Your task to perform on an android device: open app "Venmo" (install if not already installed), go to login, and select forgot password Image 0: 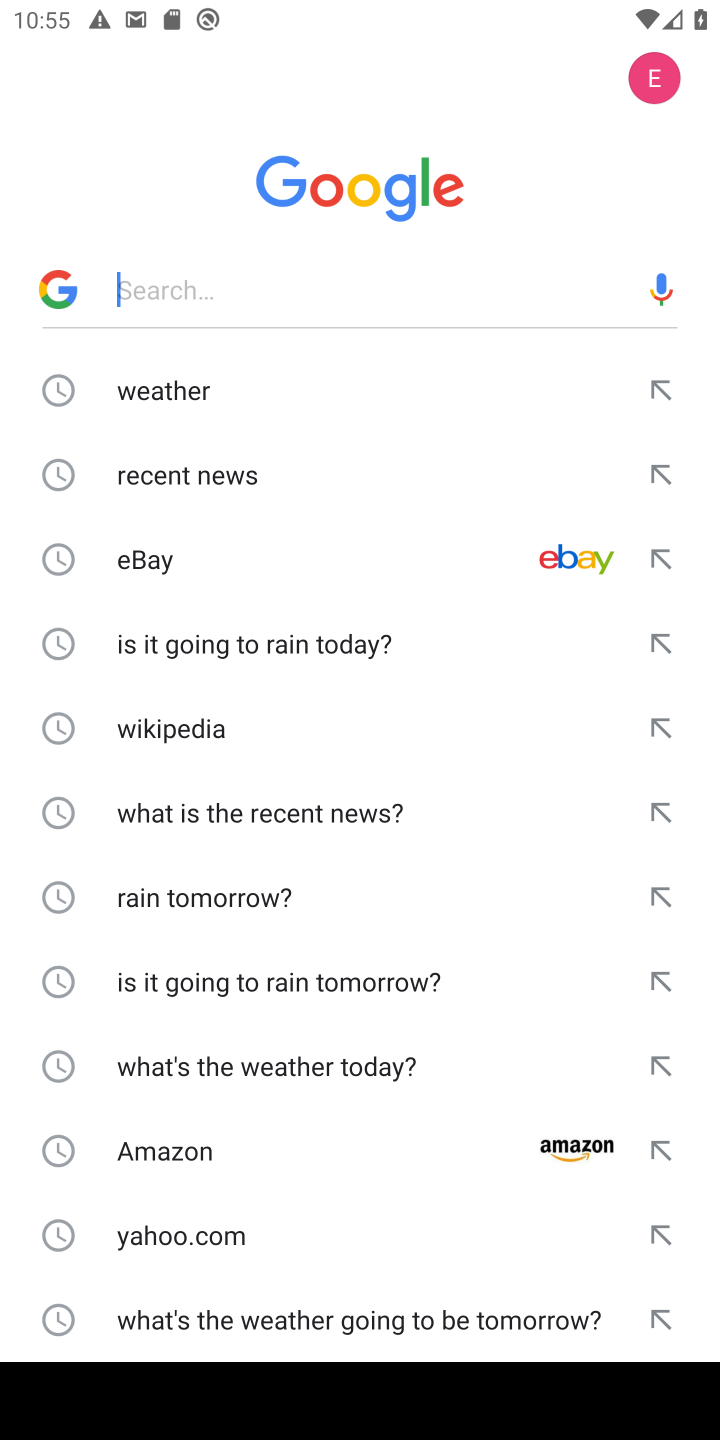
Step 0: press home button
Your task to perform on an android device: open app "Venmo" (install if not already installed), go to login, and select forgot password Image 1: 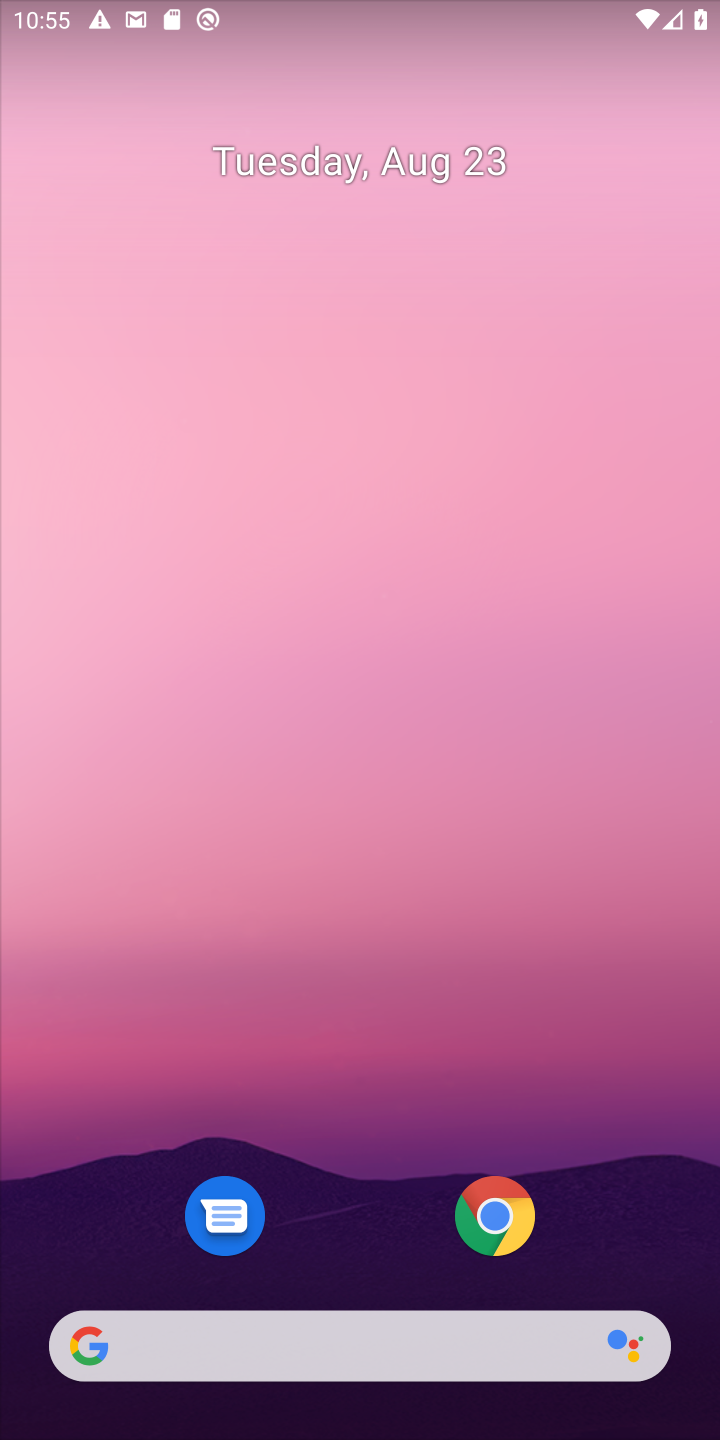
Step 1: drag from (301, 1353) to (408, 188)
Your task to perform on an android device: open app "Venmo" (install if not already installed), go to login, and select forgot password Image 2: 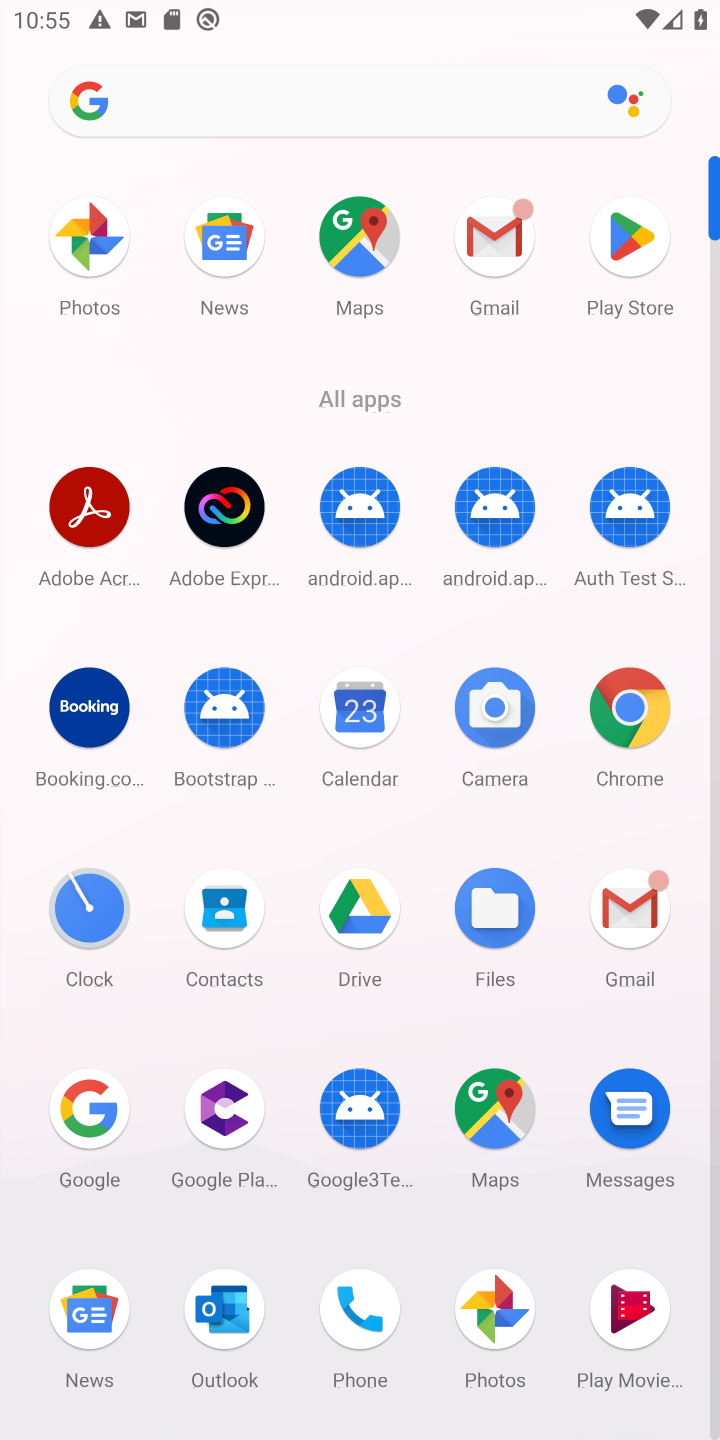
Step 2: click (633, 252)
Your task to perform on an android device: open app "Venmo" (install if not already installed), go to login, and select forgot password Image 3: 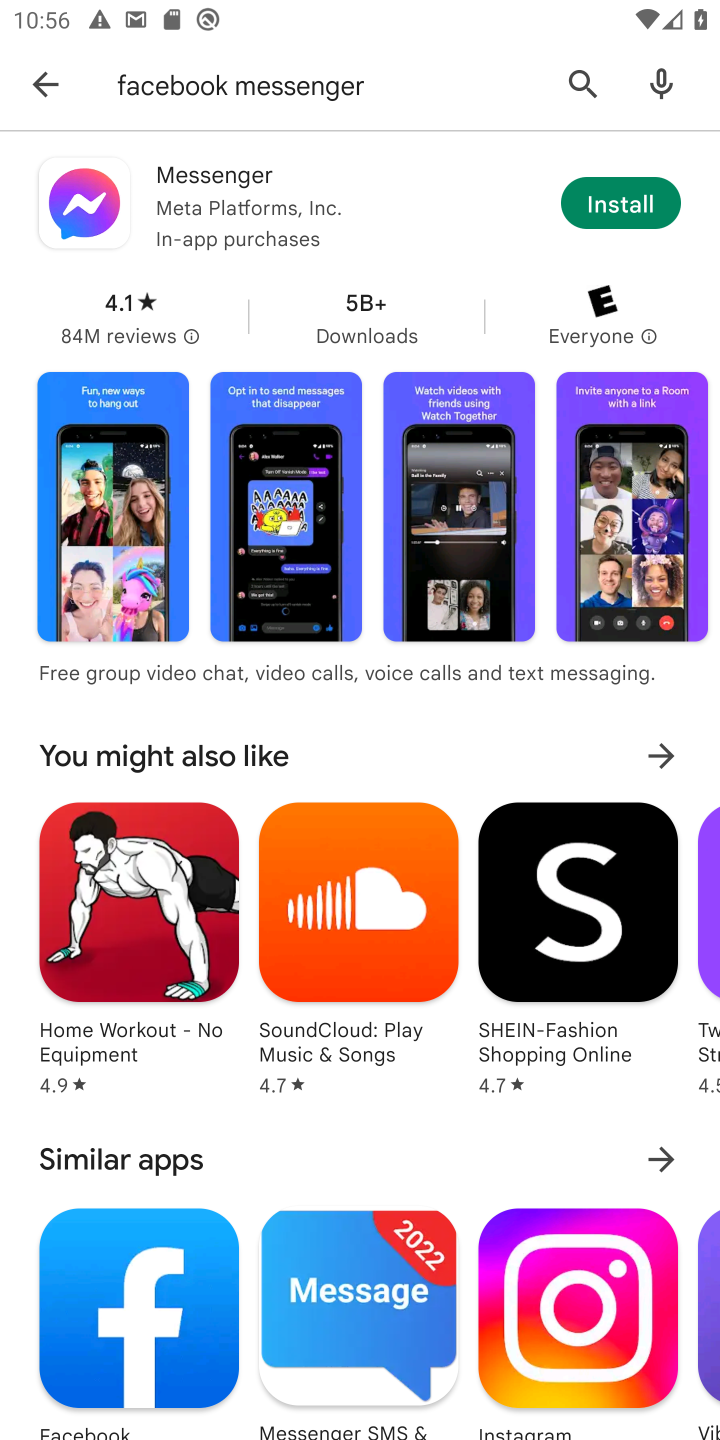
Step 3: press back button
Your task to perform on an android device: open app "Venmo" (install if not already installed), go to login, and select forgot password Image 4: 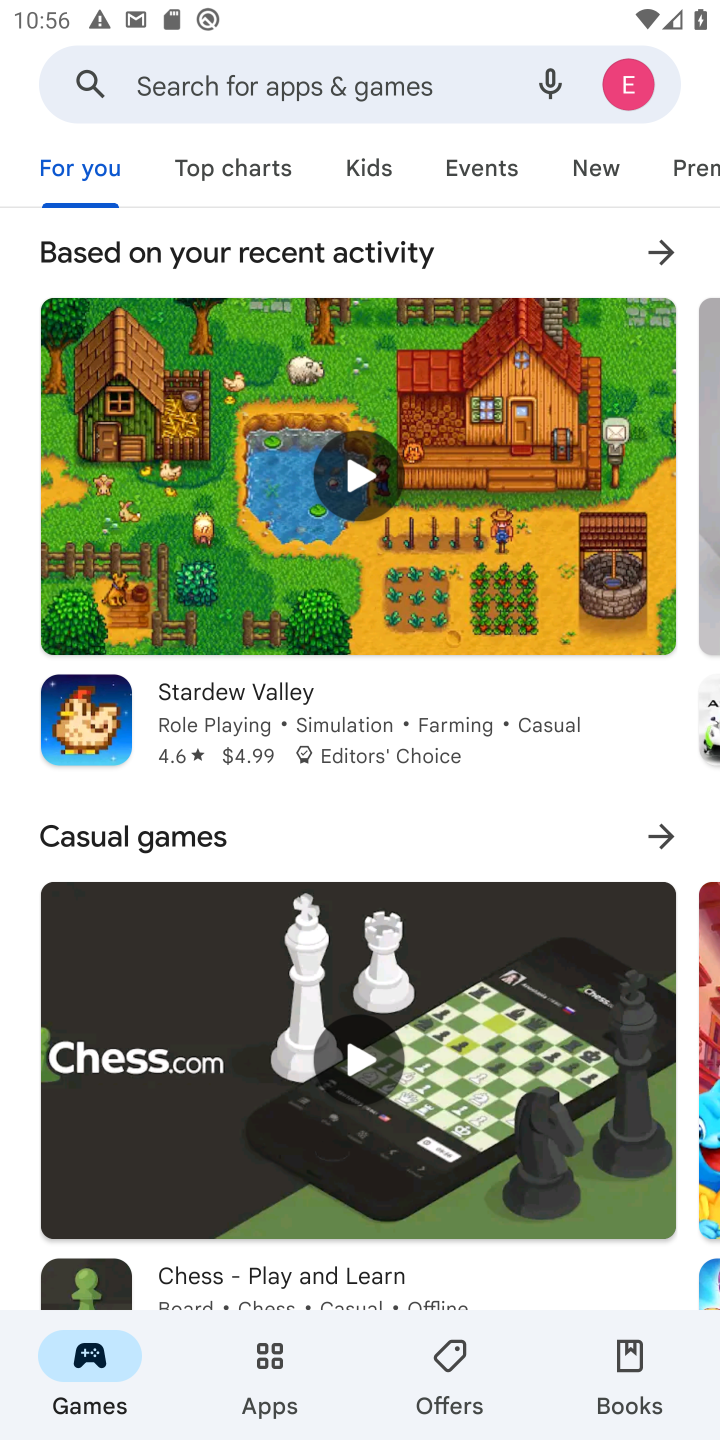
Step 4: click (403, 92)
Your task to perform on an android device: open app "Venmo" (install if not already installed), go to login, and select forgot password Image 5: 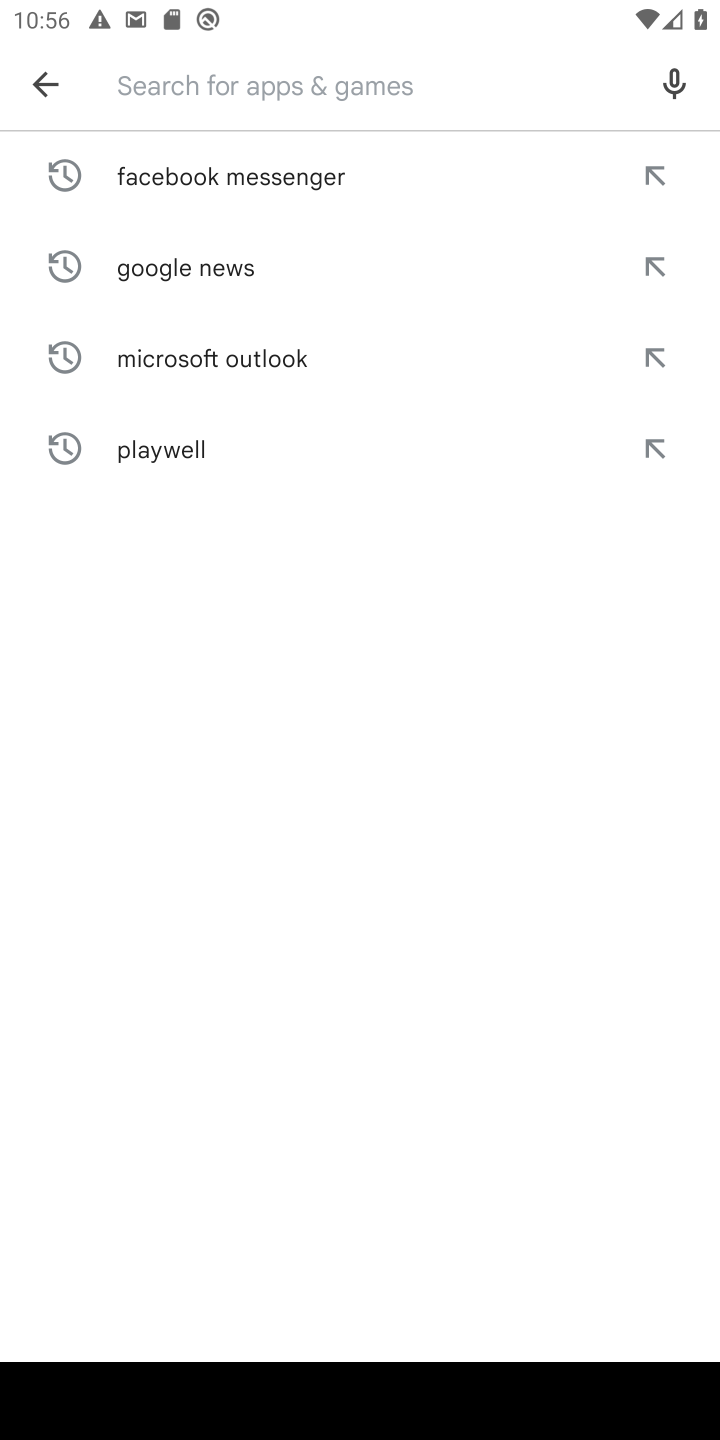
Step 5: type "Venmo"
Your task to perform on an android device: open app "Venmo" (install if not already installed), go to login, and select forgot password Image 6: 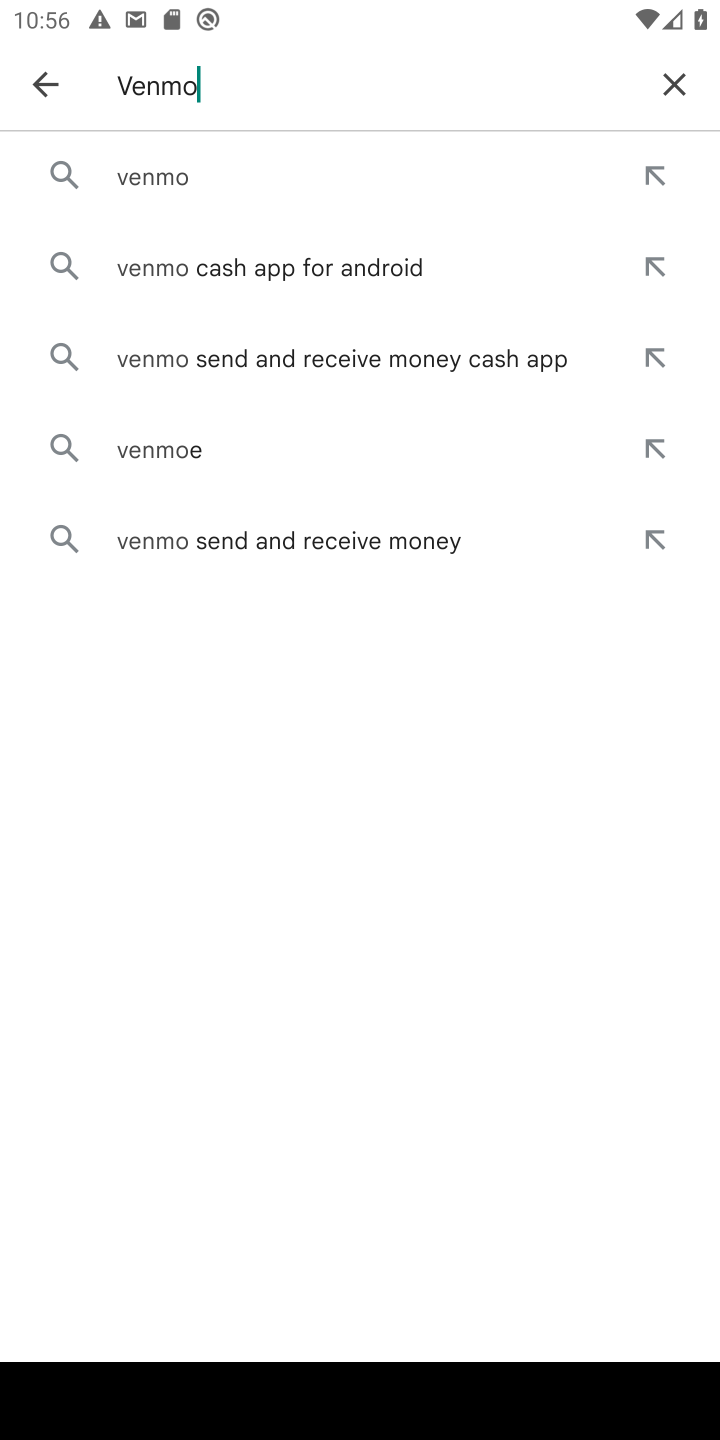
Step 6: click (164, 177)
Your task to perform on an android device: open app "Venmo" (install if not already installed), go to login, and select forgot password Image 7: 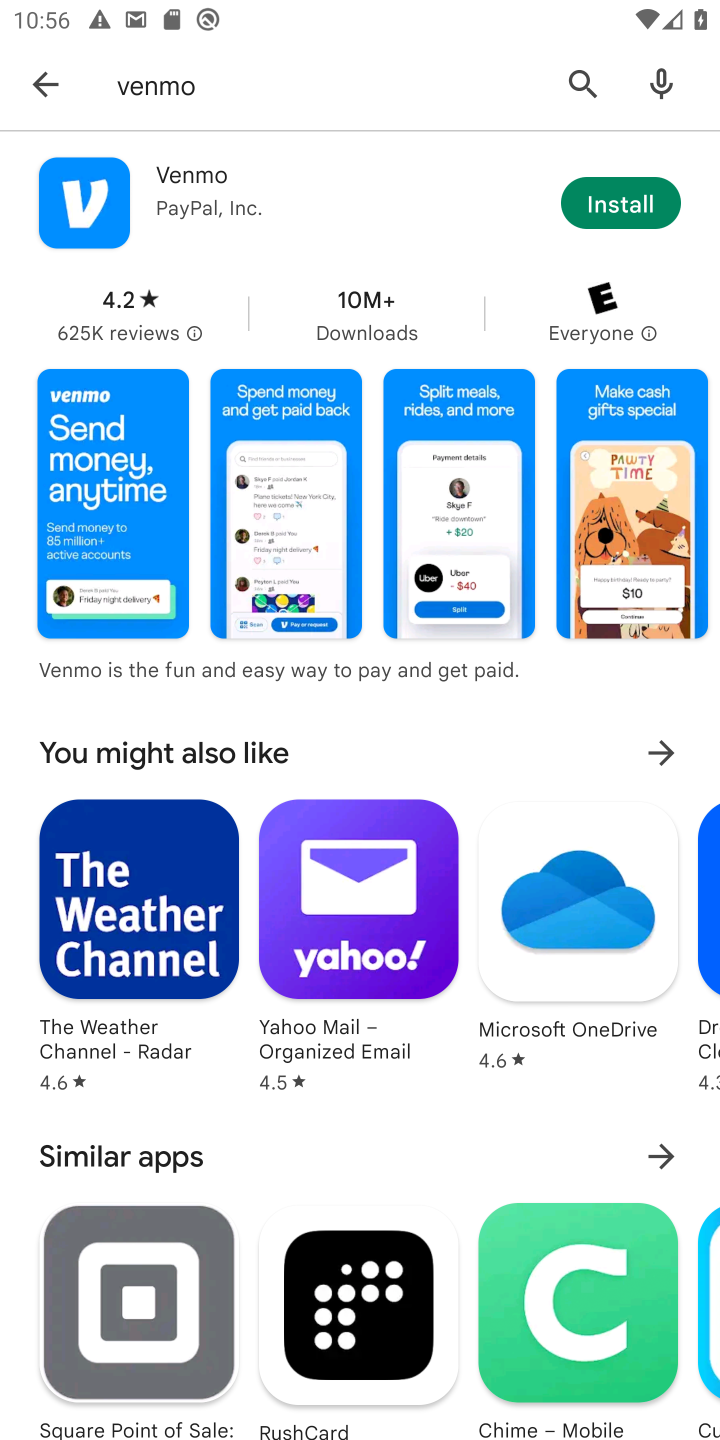
Step 7: click (625, 212)
Your task to perform on an android device: open app "Venmo" (install if not already installed), go to login, and select forgot password Image 8: 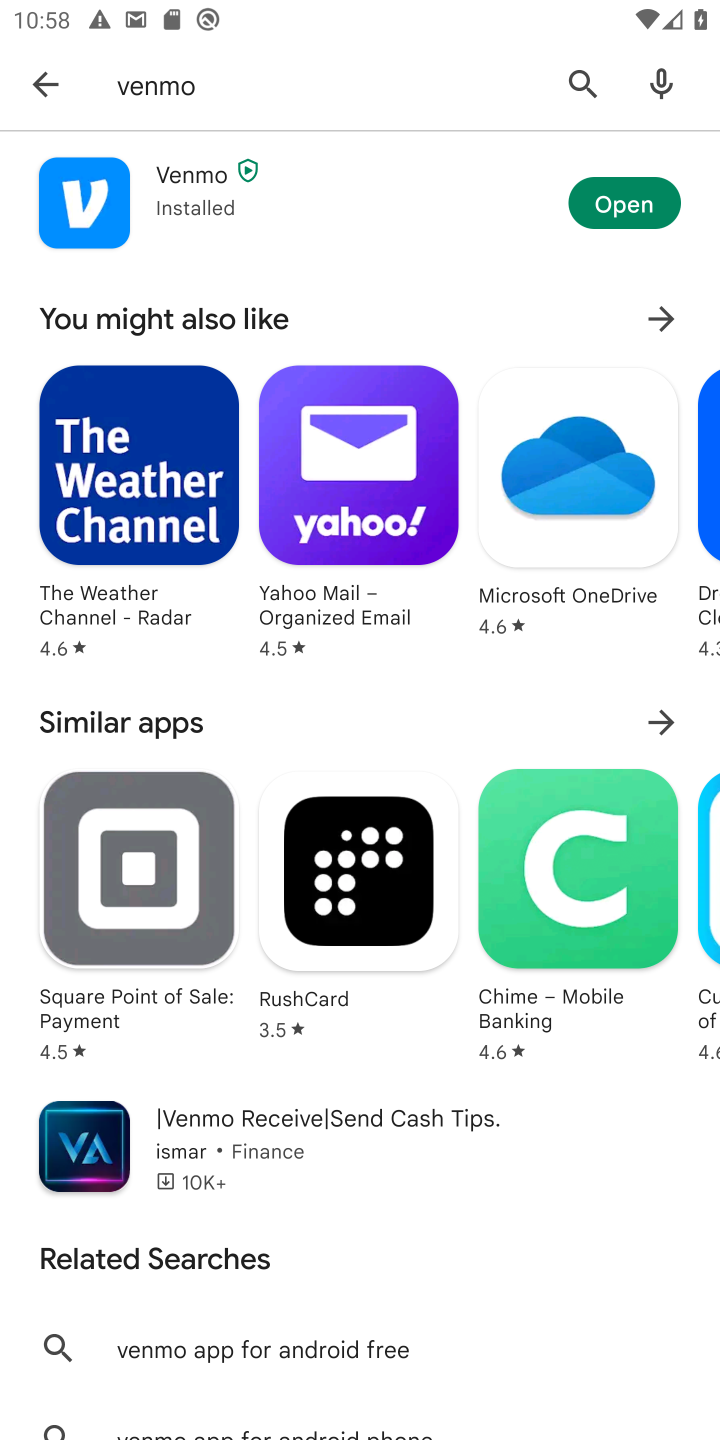
Step 8: click (625, 212)
Your task to perform on an android device: open app "Venmo" (install if not already installed), go to login, and select forgot password Image 9: 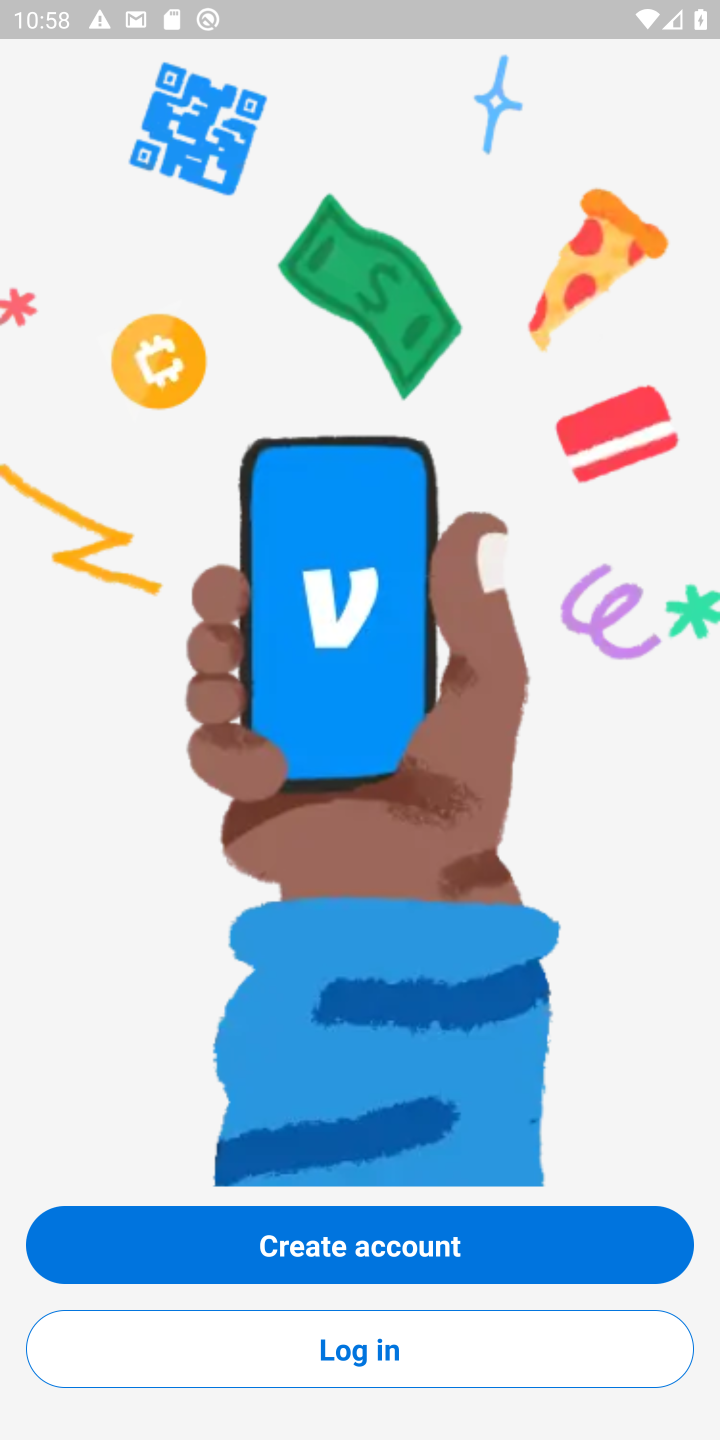
Step 9: click (385, 1349)
Your task to perform on an android device: open app "Venmo" (install if not already installed), go to login, and select forgot password Image 10: 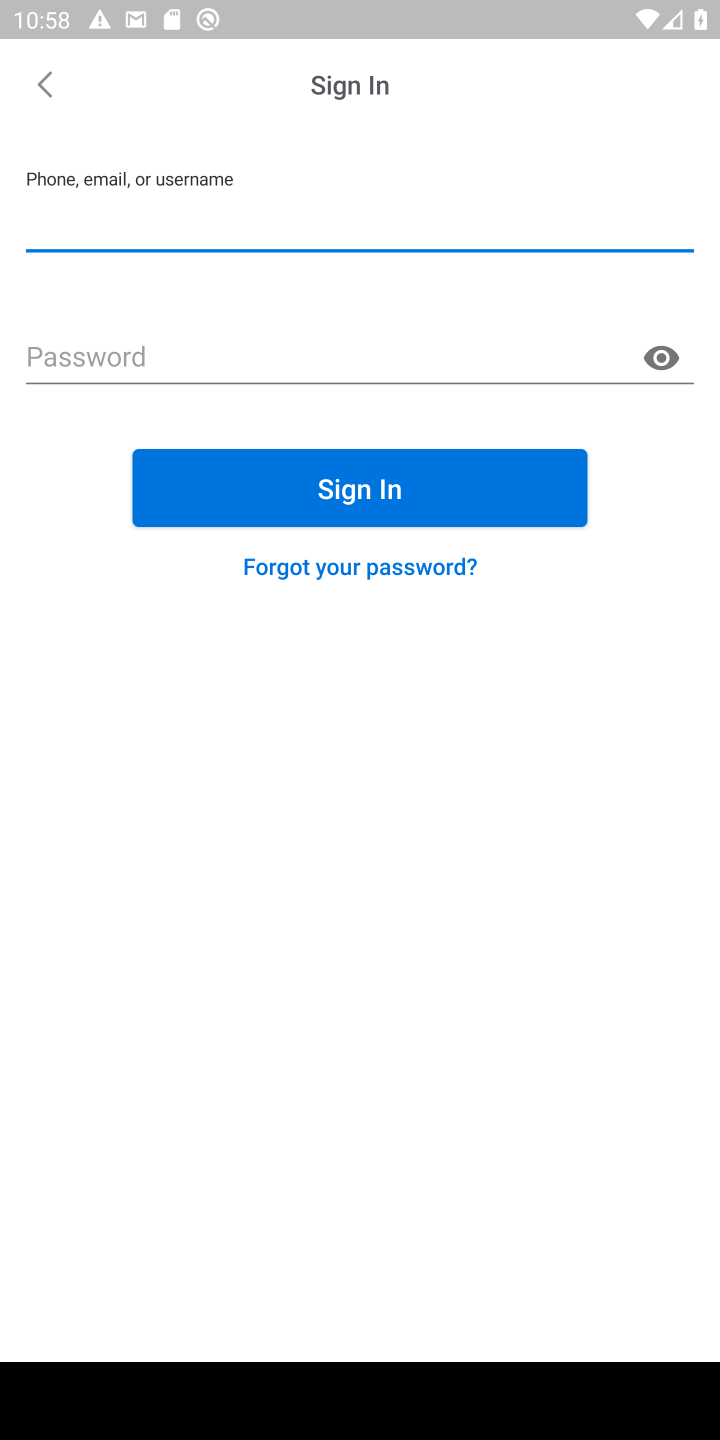
Step 10: click (399, 564)
Your task to perform on an android device: open app "Venmo" (install if not already installed), go to login, and select forgot password Image 11: 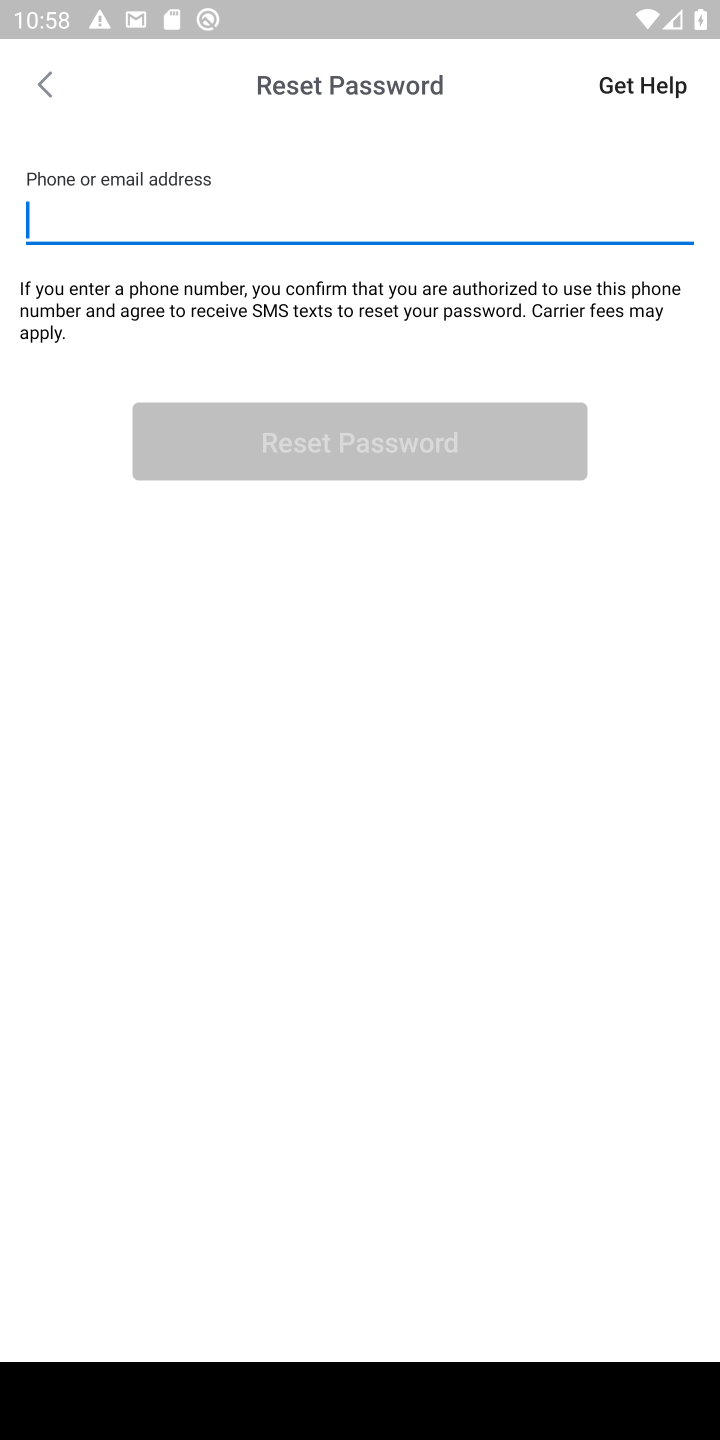
Step 11: task complete